Your task to perform on an android device: Open battery settings Image 0: 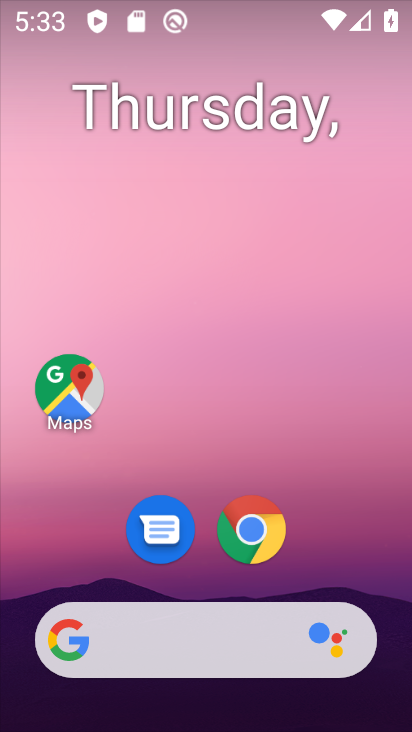
Step 0: drag from (352, 564) to (275, 10)
Your task to perform on an android device: Open battery settings Image 1: 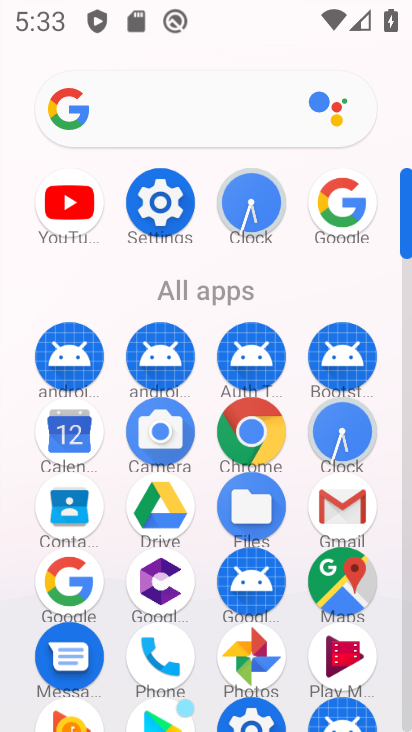
Step 1: click (164, 197)
Your task to perform on an android device: Open battery settings Image 2: 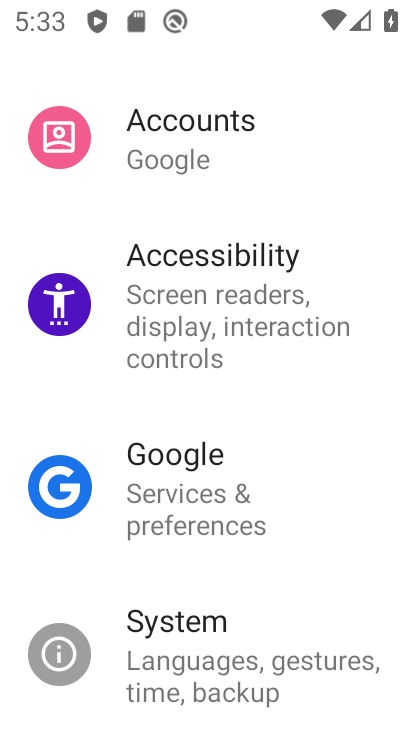
Step 2: drag from (188, 524) to (239, 401)
Your task to perform on an android device: Open battery settings Image 3: 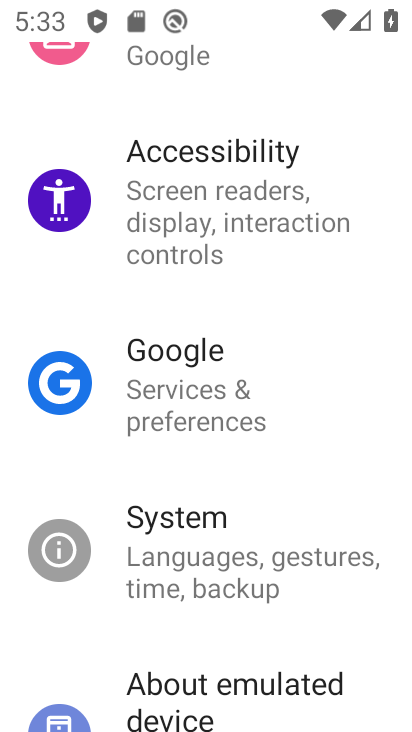
Step 3: drag from (221, 424) to (270, 572)
Your task to perform on an android device: Open battery settings Image 4: 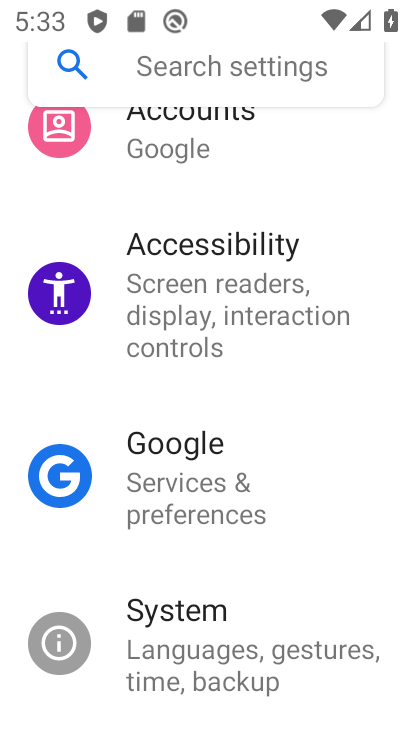
Step 4: drag from (252, 242) to (296, 525)
Your task to perform on an android device: Open battery settings Image 5: 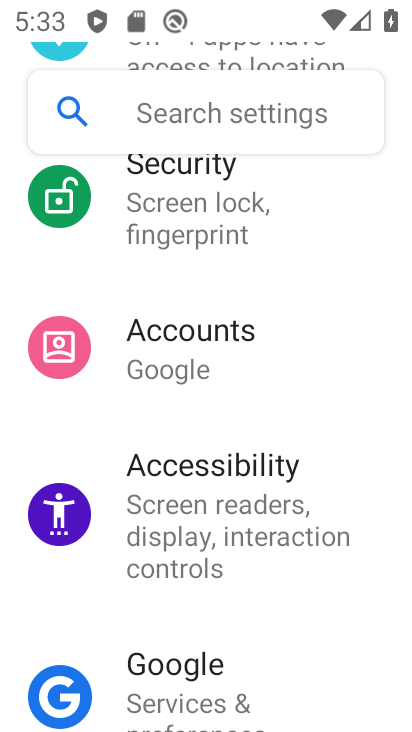
Step 5: drag from (251, 284) to (280, 517)
Your task to perform on an android device: Open battery settings Image 6: 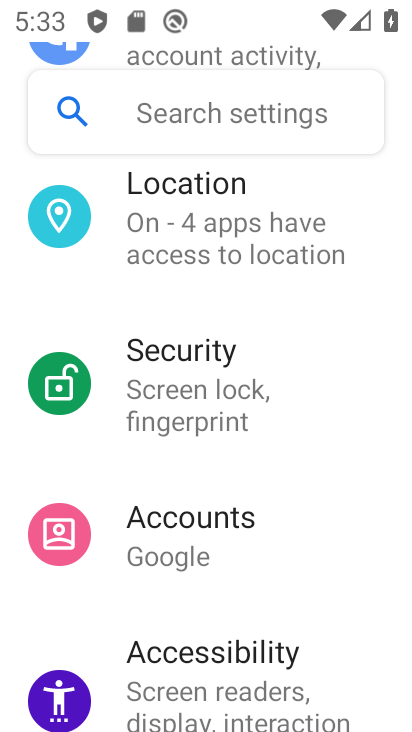
Step 6: drag from (251, 258) to (313, 431)
Your task to perform on an android device: Open battery settings Image 7: 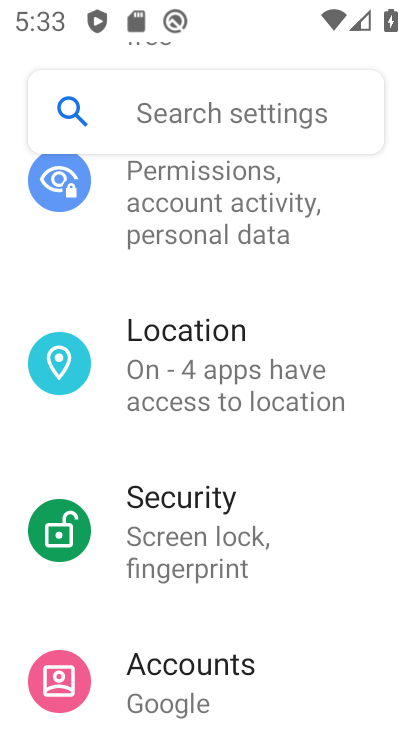
Step 7: drag from (241, 187) to (268, 500)
Your task to perform on an android device: Open battery settings Image 8: 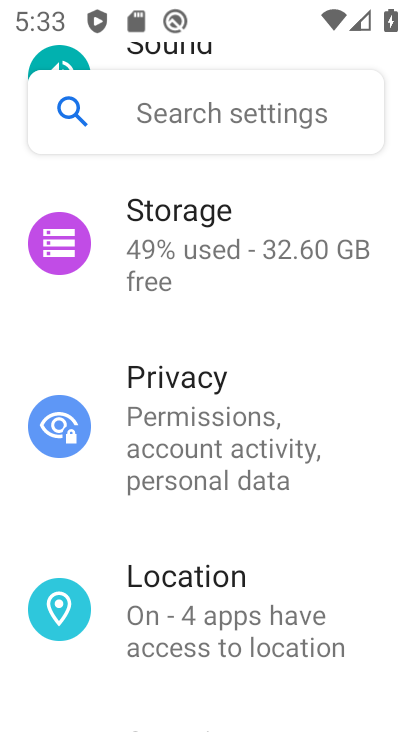
Step 8: drag from (245, 291) to (239, 554)
Your task to perform on an android device: Open battery settings Image 9: 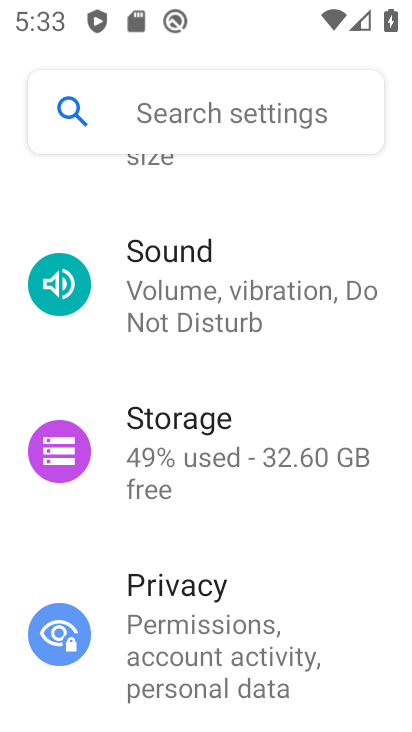
Step 9: drag from (257, 231) to (264, 474)
Your task to perform on an android device: Open battery settings Image 10: 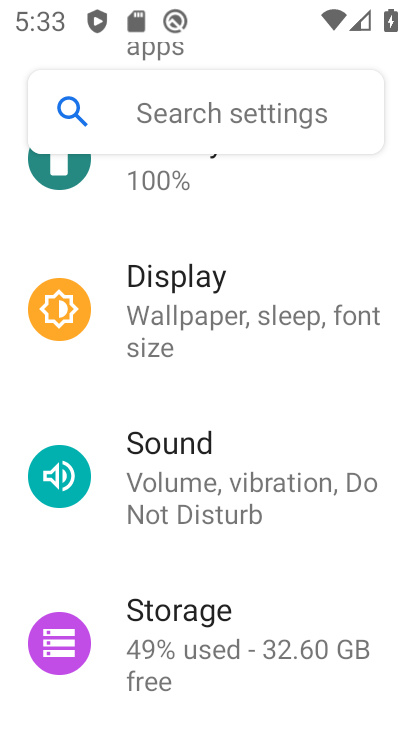
Step 10: drag from (256, 247) to (264, 444)
Your task to perform on an android device: Open battery settings Image 11: 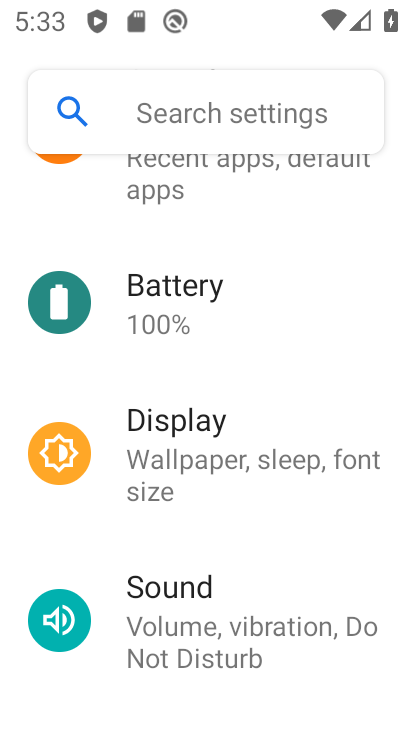
Step 11: click (181, 283)
Your task to perform on an android device: Open battery settings Image 12: 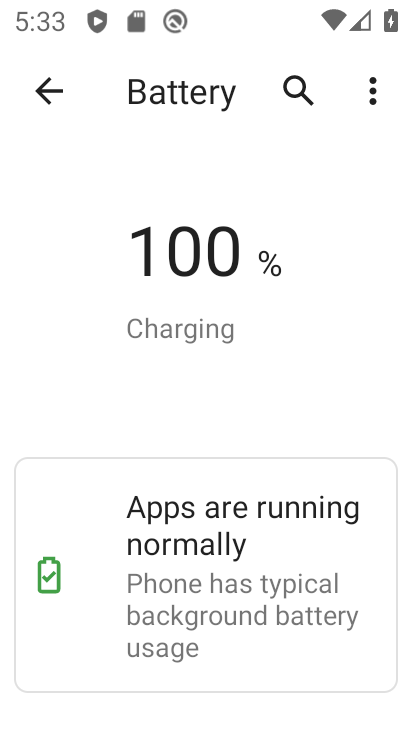
Step 12: task complete